Your task to perform on an android device: turn on javascript in the chrome app Image 0: 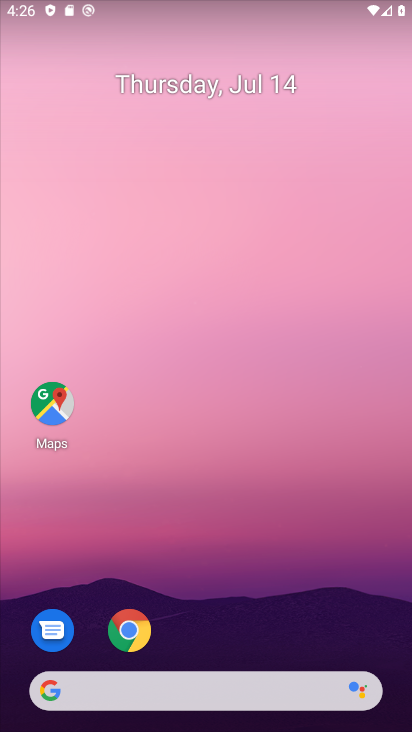
Step 0: drag from (268, 653) to (189, 66)
Your task to perform on an android device: turn on javascript in the chrome app Image 1: 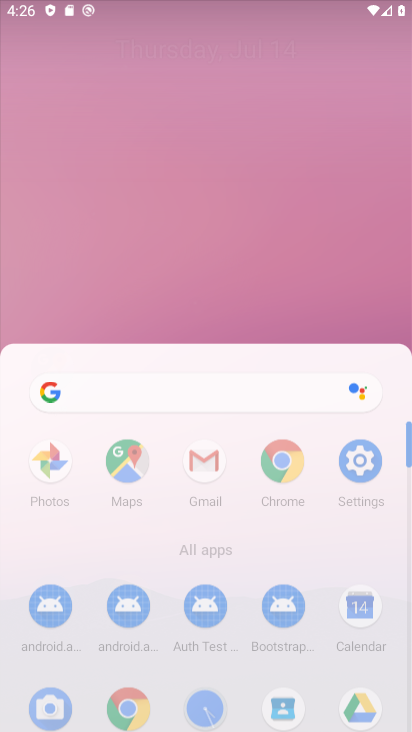
Step 1: drag from (183, 657) to (141, 144)
Your task to perform on an android device: turn on javascript in the chrome app Image 2: 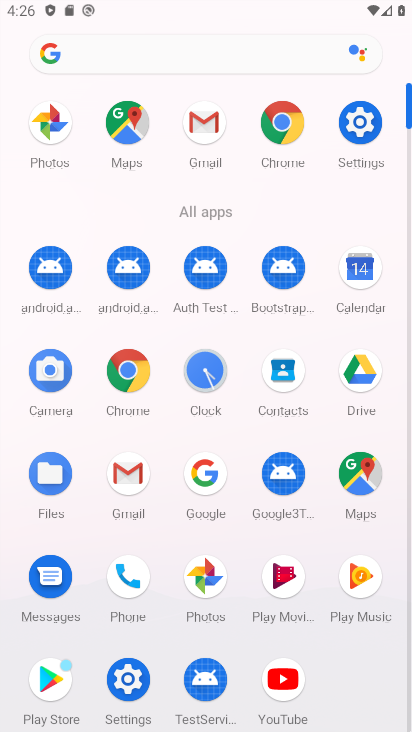
Step 2: drag from (171, 518) to (166, 202)
Your task to perform on an android device: turn on javascript in the chrome app Image 3: 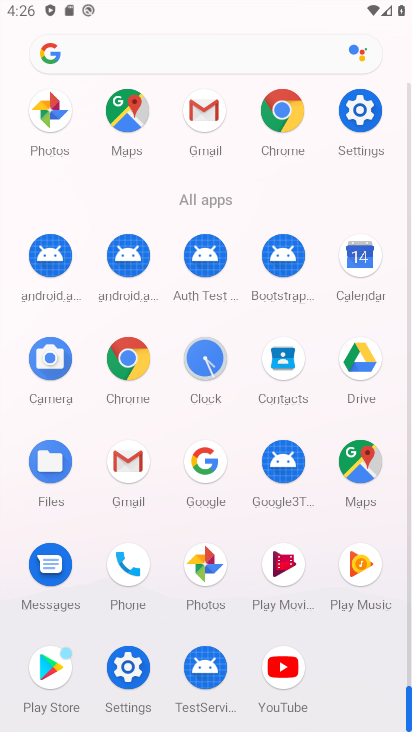
Step 3: click (290, 107)
Your task to perform on an android device: turn on javascript in the chrome app Image 4: 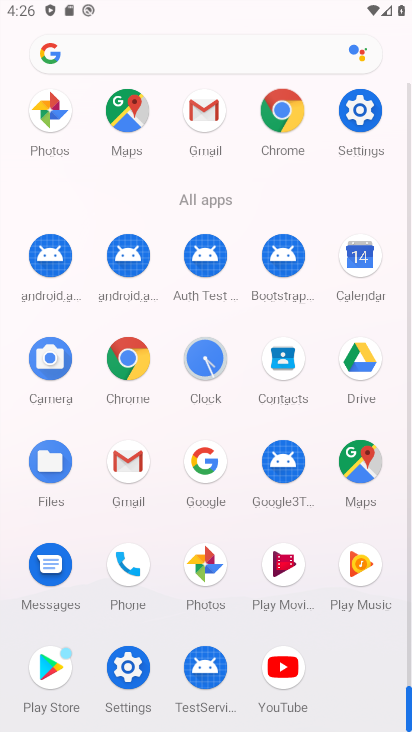
Step 4: click (290, 107)
Your task to perform on an android device: turn on javascript in the chrome app Image 5: 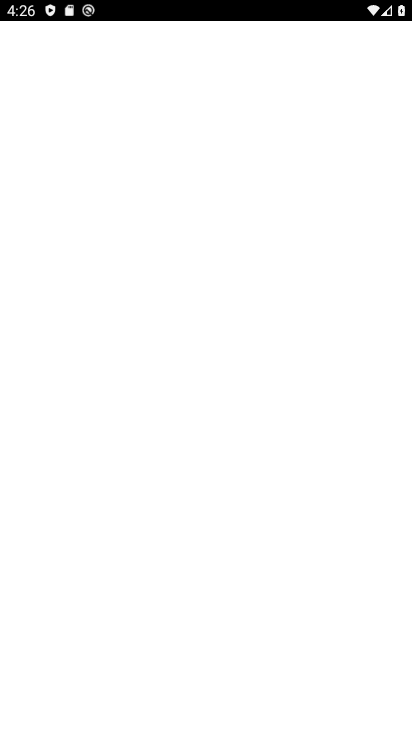
Step 5: click (290, 108)
Your task to perform on an android device: turn on javascript in the chrome app Image 6: 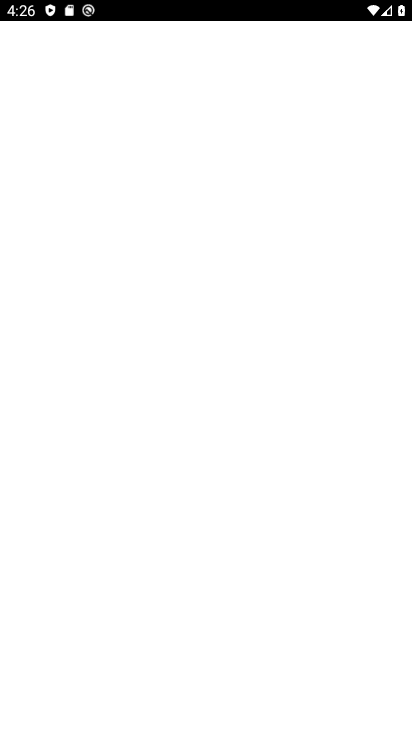
Step 6: click (290, 108)
Your task to perform on an android device: turn on javascript in the chrome app Image 7: 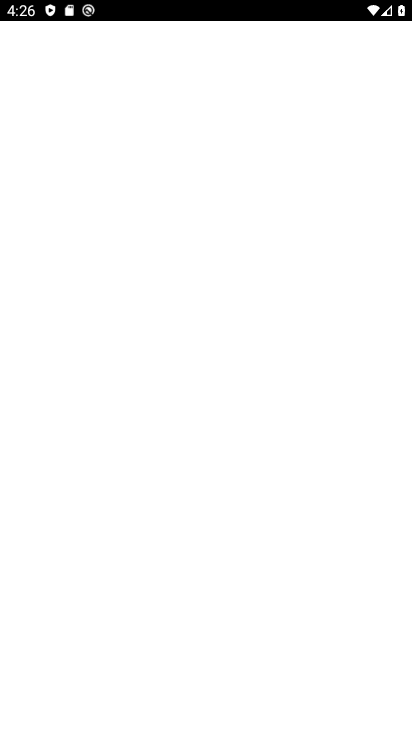
Step 7: click (289, 109)
Your task to perform on an android device: turn on javascript in the chrome app Image 8: 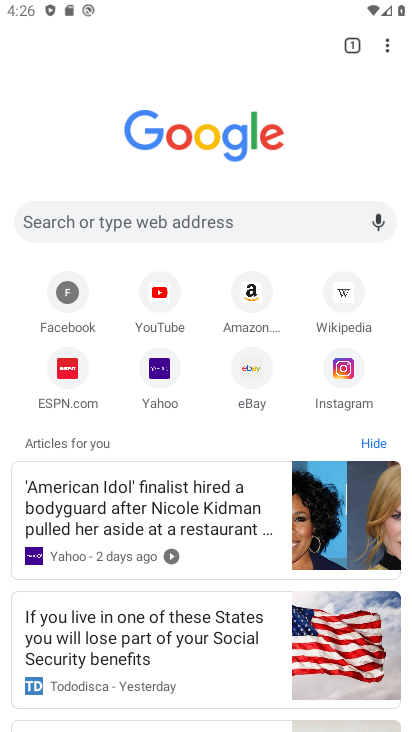
Step 8: drag from (388, 45) to (221, 382)
Your task to perform on an android device: turn on javascript in the chrome app Image 9: 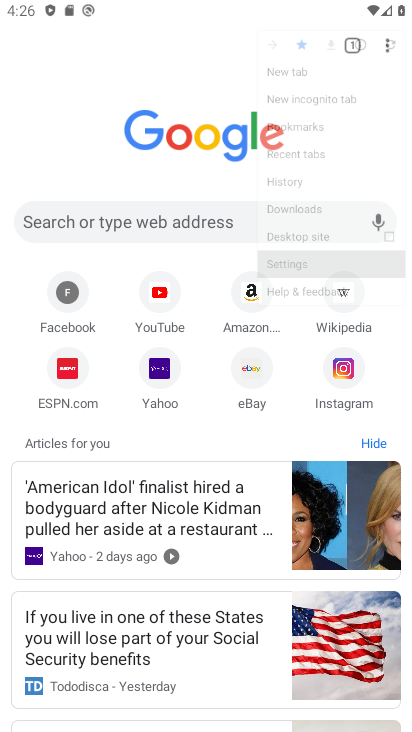
Step 9: click (221, 382)
Your task to perform on an android device: turn on javascript in the chrome app Image 10: 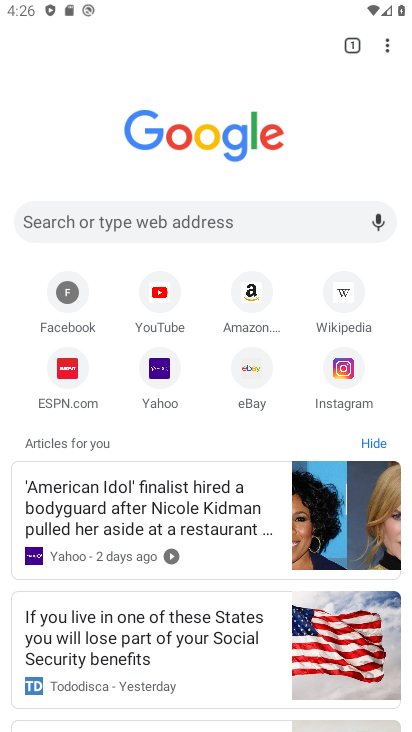
Step 10: click (223, 380)
Your task to perform on an android device: turn on javascript in the chrome app Image 11: 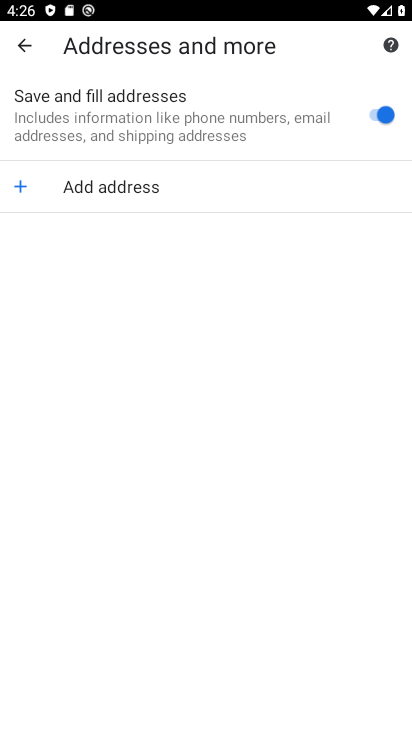
Step 11: click (26, 51)
Your task to perform on an android device: turn on javascript in the chrome app Image 12: 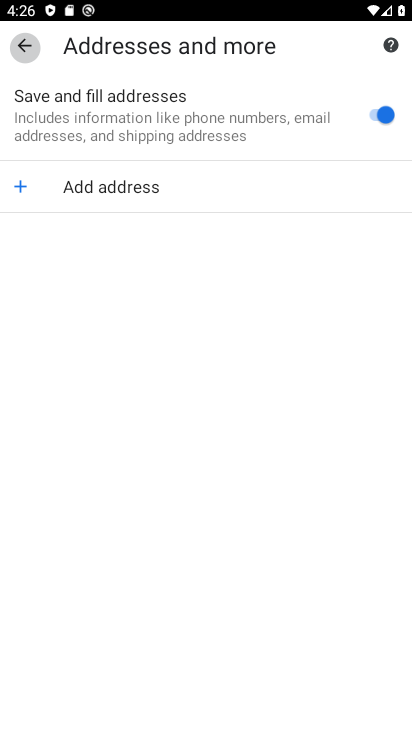
Step 12: click (26, 51)
Your task to perform on an android device: turn on javascript in the chrome app Image 13: 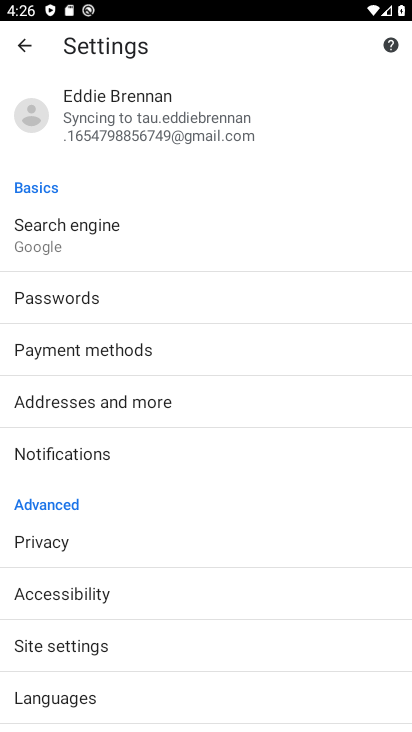
Step 13: drag from (62, 631) to (65, 289)
Your task to perform on an android device: turn on javascript in the chrome app Image 14: 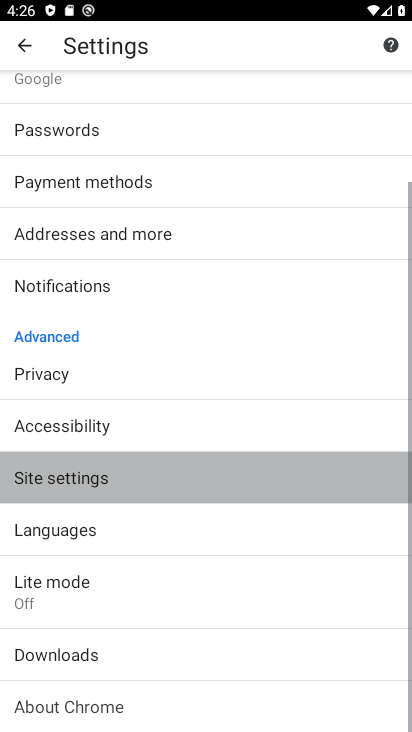
Step 14: drag from (45, 611) to (55, 298)
Your task to perform on an android device: turn on javascript in the chrome app Image 15: 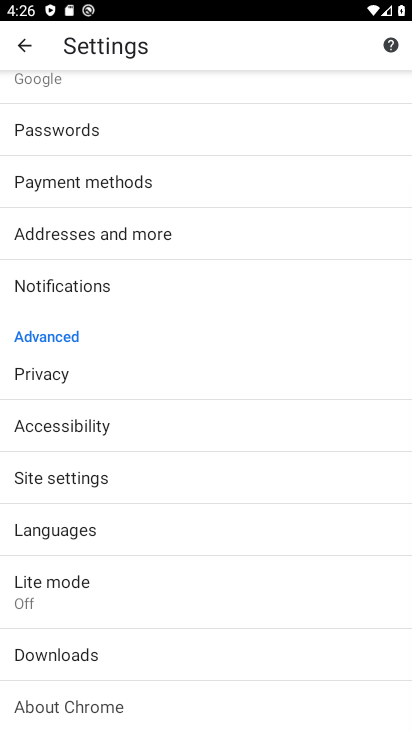
Step 15: drag from (61, 534) to (88, 307)
Your task to perform on an android device: turn on javascript in the chrome app Image 16: 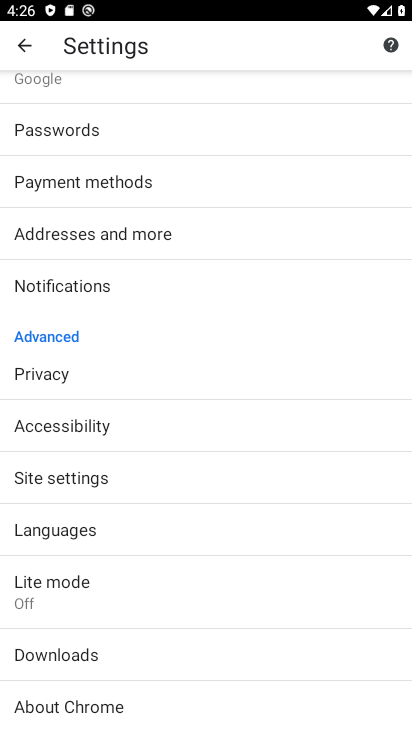
Step 16: click (53, 471)
Your task to perform on an android device: turn on javascript in the chrome app Image 17: 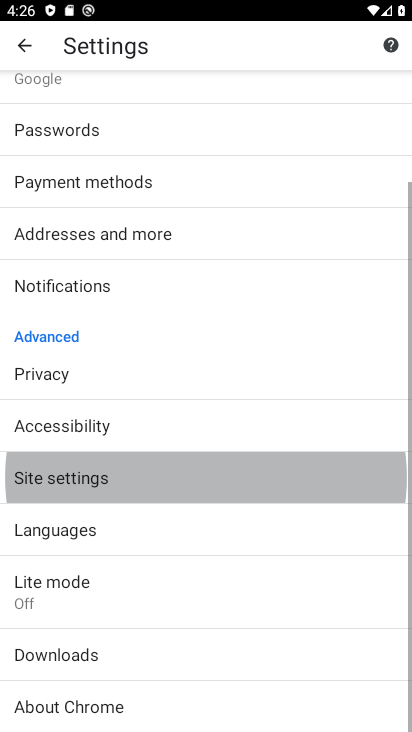
Step 17: click (53, 479)
Your task to perform on an android device: turn on javascript in the chrome app Image 18: 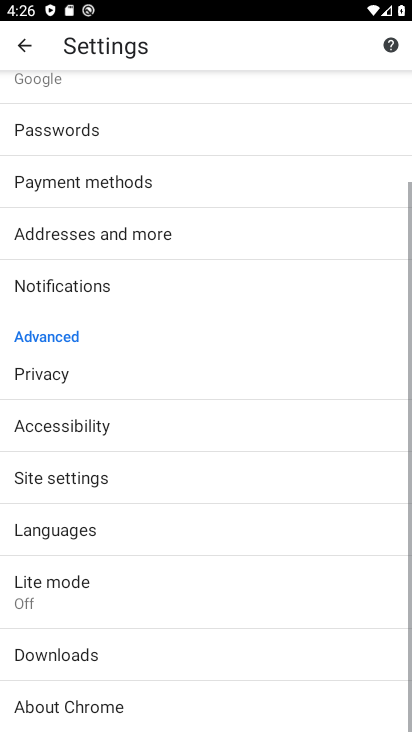
Step 18: click (53, 479)
Your task to perform on an android device: turn on javascript in the chrome app Image 19: 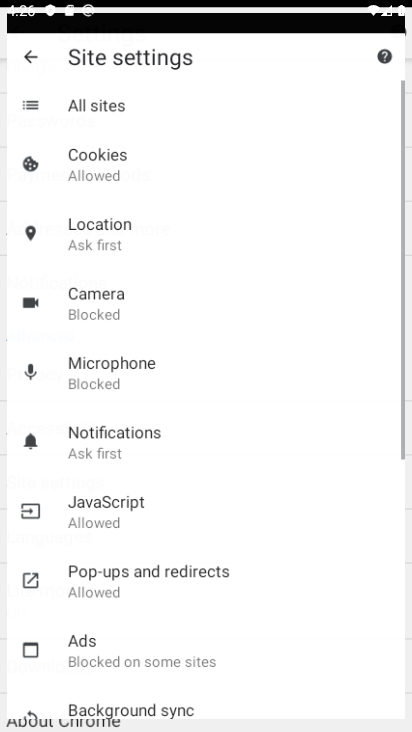
Step 19: click (53, 482)
Your task to perform on an android device: turn on javascript in the chrome app Image 20: 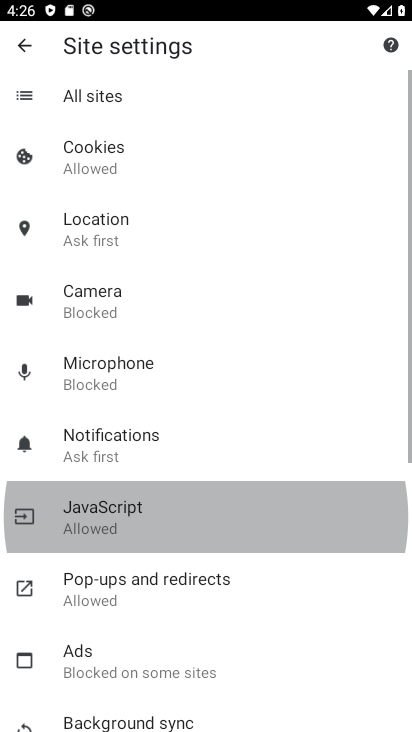
Step 20: click (56, 480)
Your task to perform on an android device: turn on javascript in the chrome app Image 21: 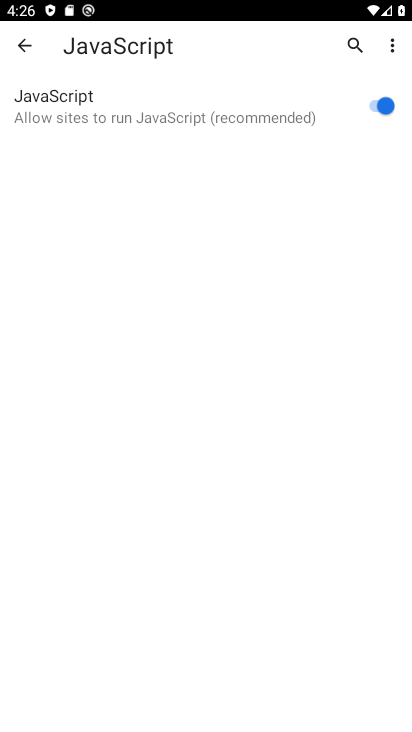
Step 21: task complete